Your task to perform on an android device: Open Maps and search for coffee Image 0: 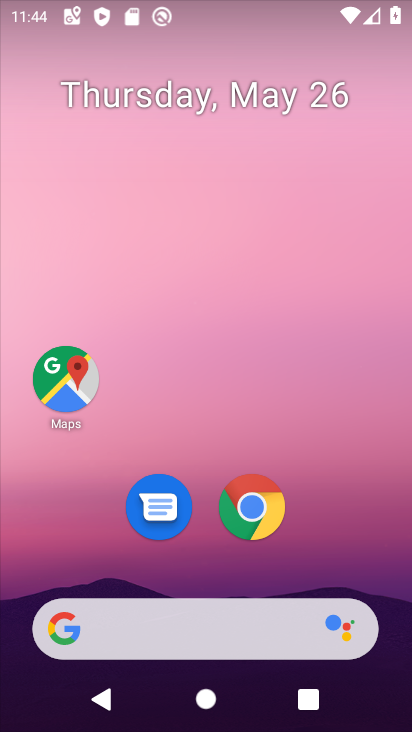
Step 0: drag from (317, 554) to (319, 139)
Your task to perform on an android device: Open Maps and search for coffee Image 1: 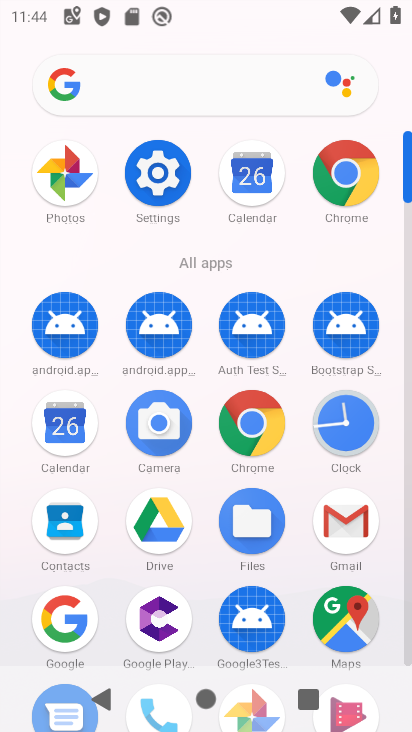
Step 1: click (352, 609)
Your task to perform on an android device: Open Maps and search for coffee Image 2: 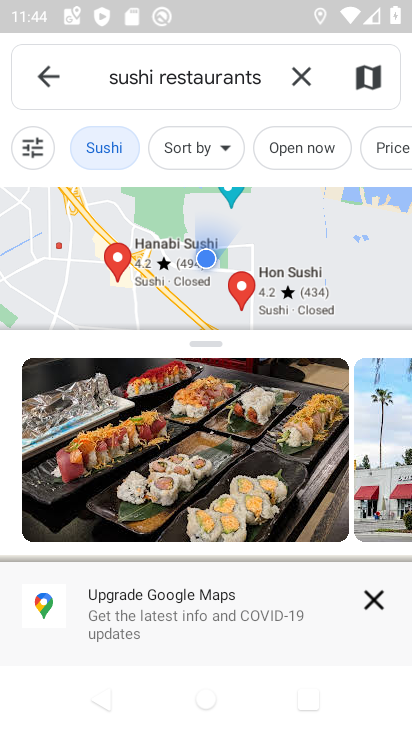
Step 2: click (226, 73)
Your task to perform on an android device: Open Maps and search for coffee Image 3: 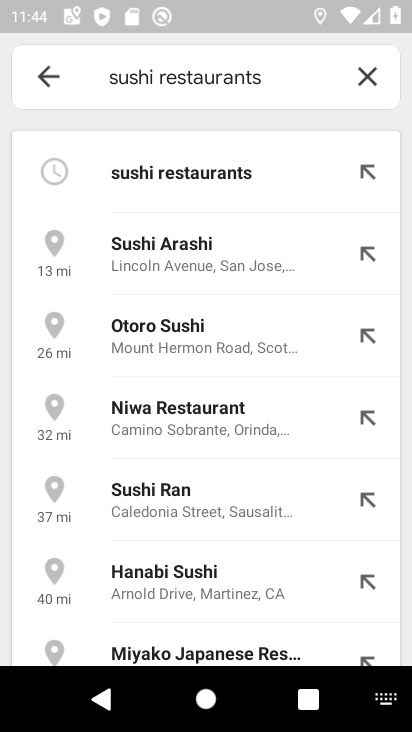
Step 3: click (363, 76)
Your task to perform on an android device: Open Maps and search for coffee Image 4: 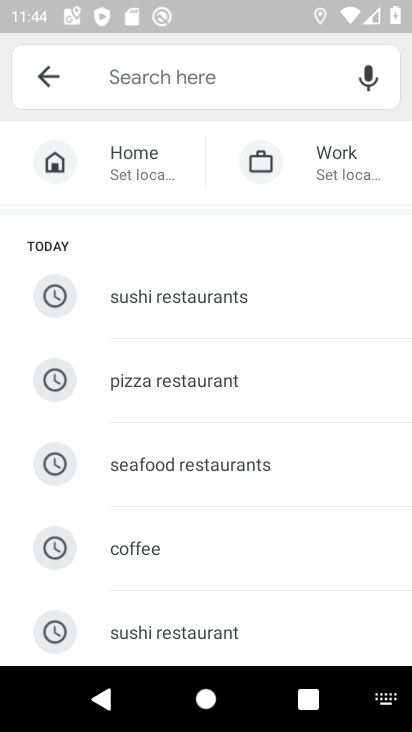
Step 4: click (156, 552)
Your task to perform on an android device: Open Maps and search for coffee Image 5: 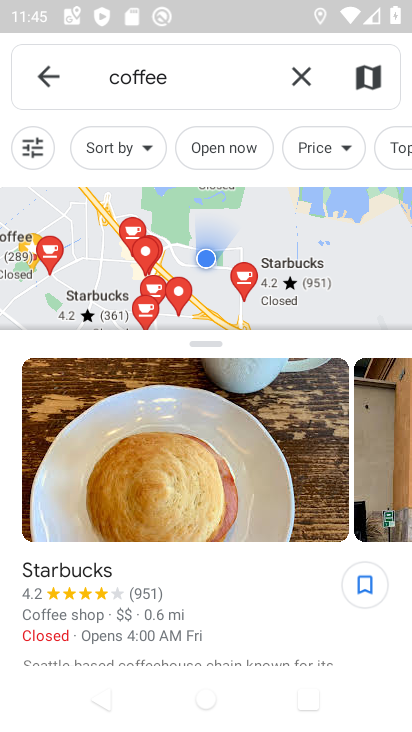
Step 5: task complete